Your task to perform on an android device: check out phone information Image 0: 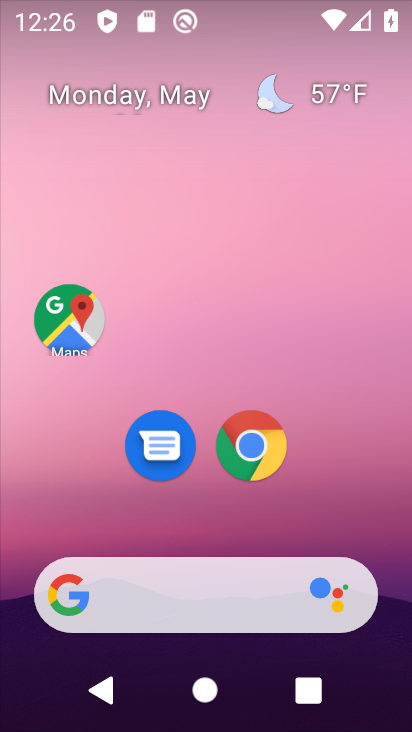
Step 0: drag from (375, 625) to (252, 57)
Your task to perform on an android device: check out phone information Image 1: 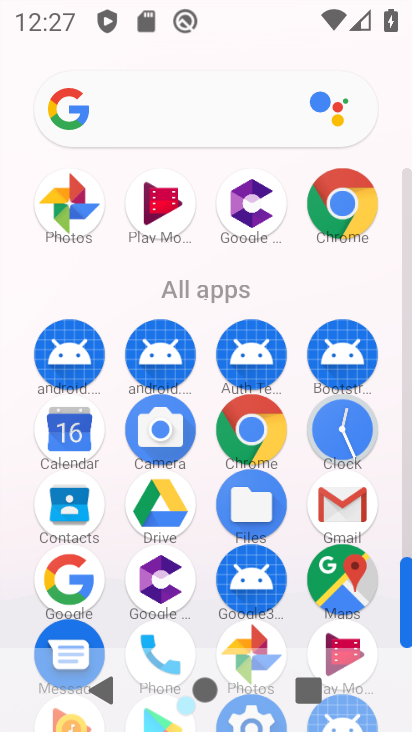
Step 1: drag from (291, 569) to (253, 128)
Your task to perform on an android device: check out phone information Image 2: 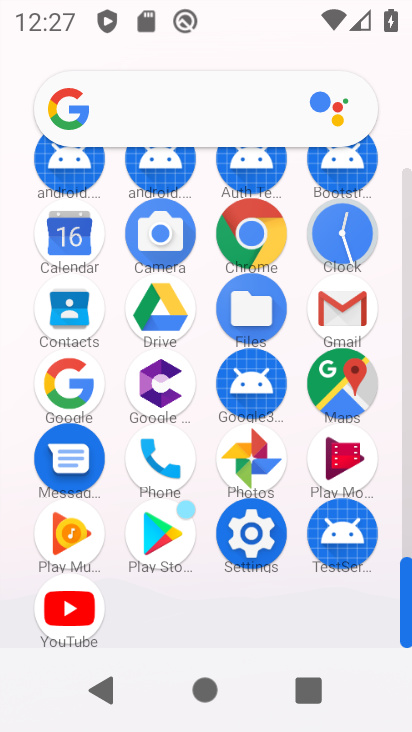
Step 2: click (233, 534)
Your task to perform on an android device: check out phone information Image 3: 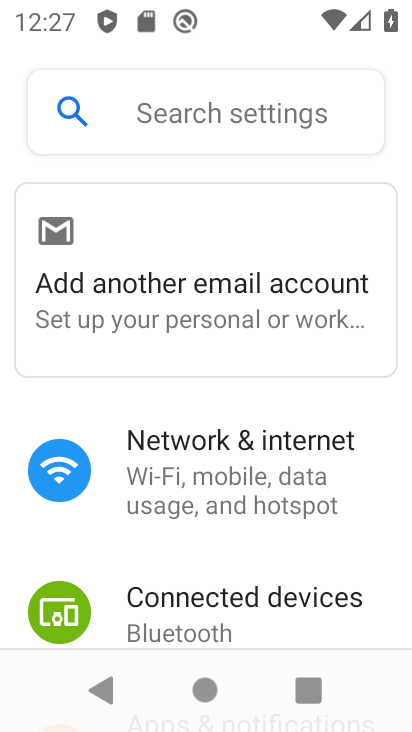
Step 3: drag from (194, 583) to (135, 5)
Your task to perform on an android device: check out phone information Image 4: 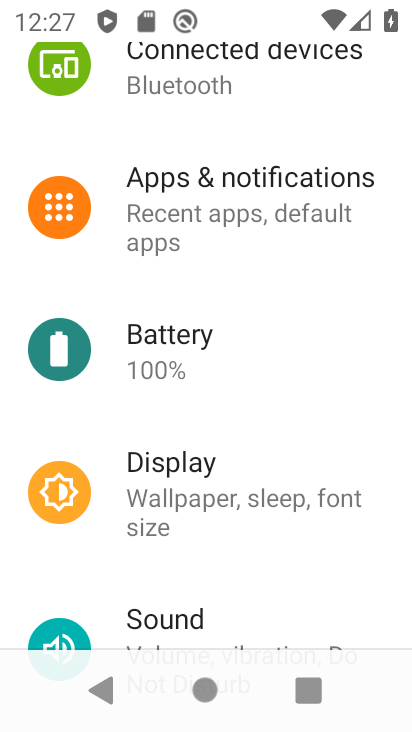
Step 4: drag from (112, 653) to (207, 85)
Your task to perform on an android device: check out phone information Image 5: 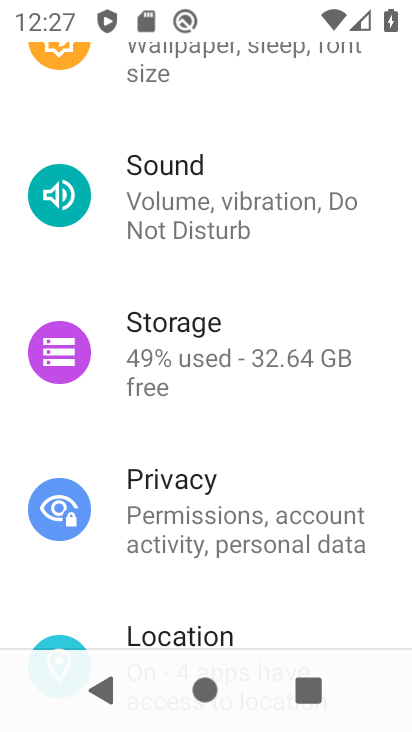
Step 5: drag from (182, 584) to (201, 47)
Your task to perform on an android device: check out phone information Image 6: 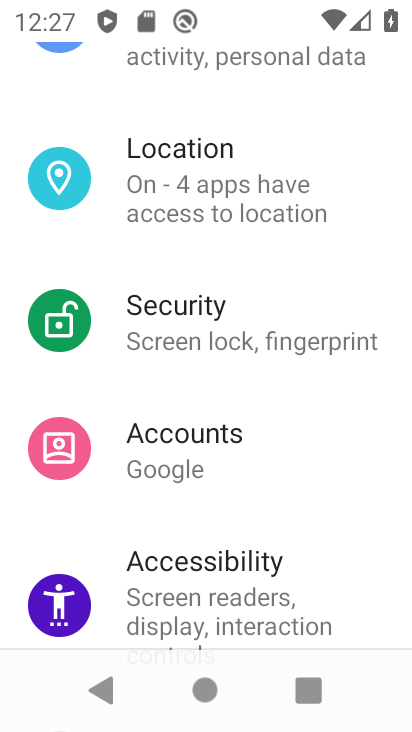
Step 6: drag from (171, 585) to (225, 54)
Your task to perform on an android device: check out phone information Image 7: 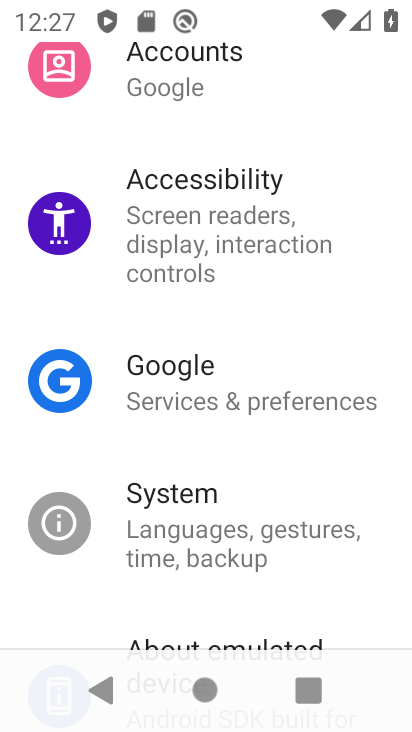
Step 7: drag from (218, 555) to (237, 19)
Your task to perform on an android device: check out phone information Image 8: 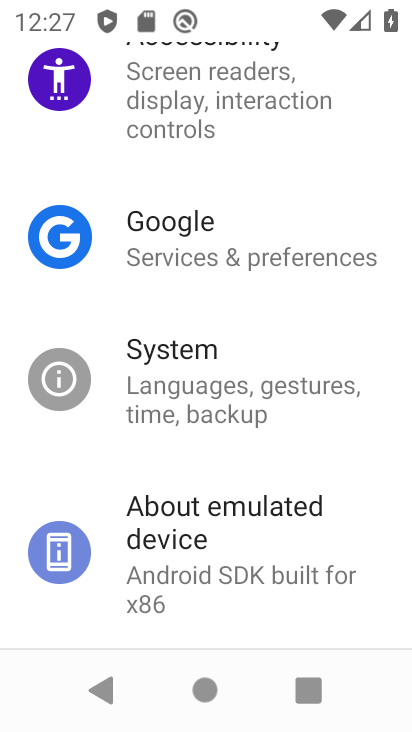
Step 8: click (182, 565)
Your task to perform on an android device: check out phone information Image 9: 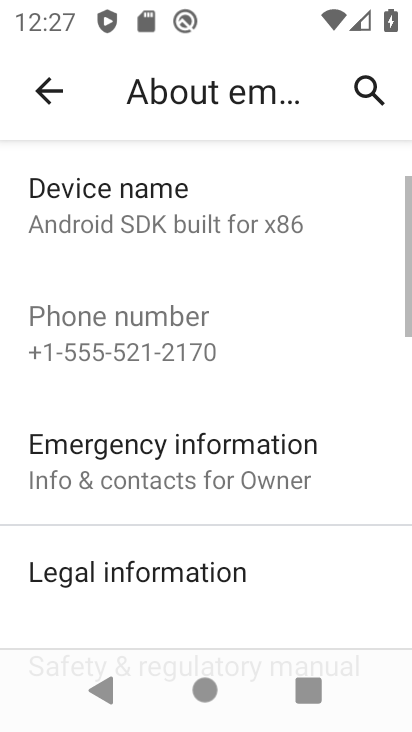
Step 9: task complete